Your task to perform on an android device: make emails show in primary in the gmail app Image 0: 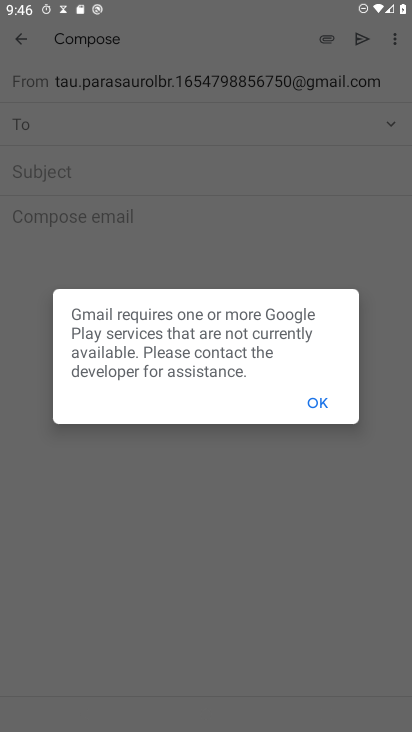
Step 0: click (319, 403)
Your task to perform on an android device: make emails show in primary in the gmail app Image 1: 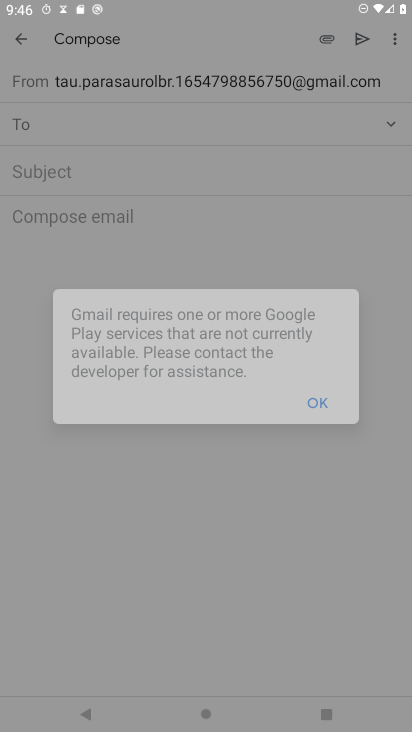
Step 1: click (324, 402)
Your task to perform on an android device: make emails show in primary in the gmail app Image 2: 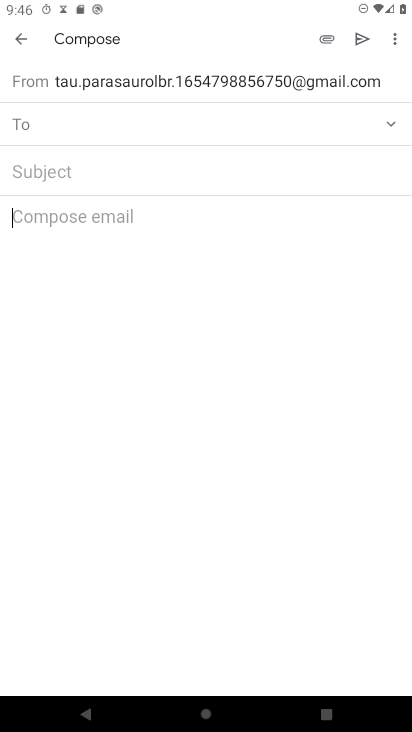
Step 2: click (24, 29)
Your task to perform on an android device: make emails show in primary in the gmail app Image 3: 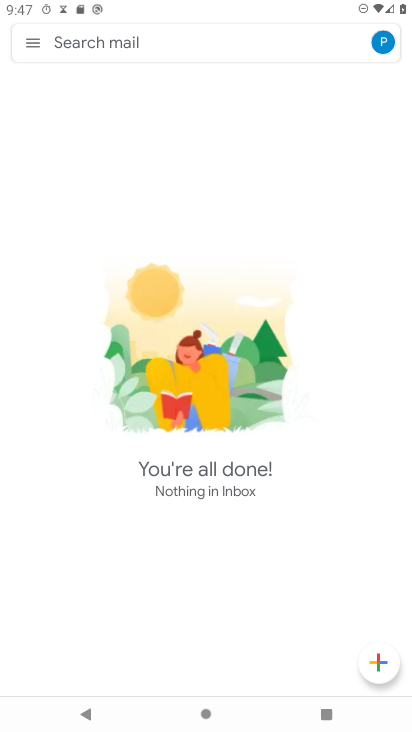
Step 3: drag from (31, 35) to (49, 213)
Your task to perform on an android device: make emails show in primary in the gmail app Image 4: 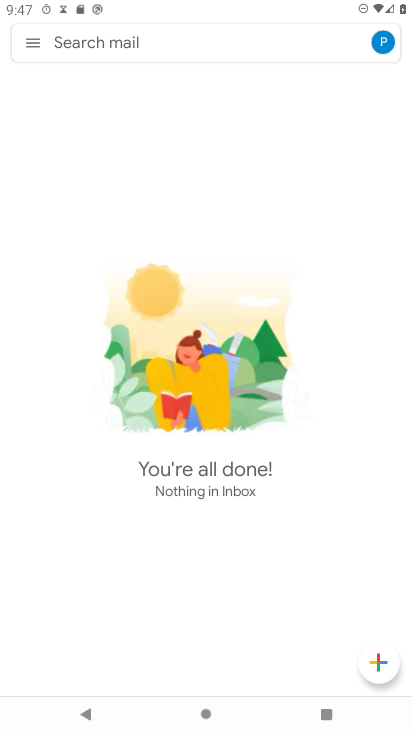
Step 4: click (44, 31)
Your task to perform on an android device: make emails show in primary in the gmail app Image 5: 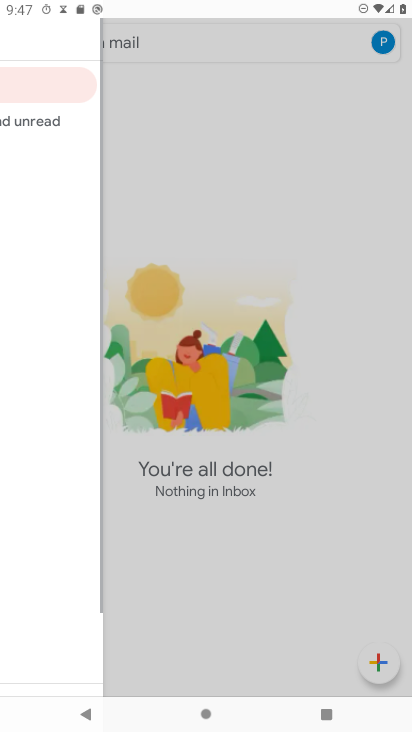
Step 5: drag from (45, 35) to (68, 227)
Your task to perform on an android device: make emails show in primary in the gmail app Image 6: 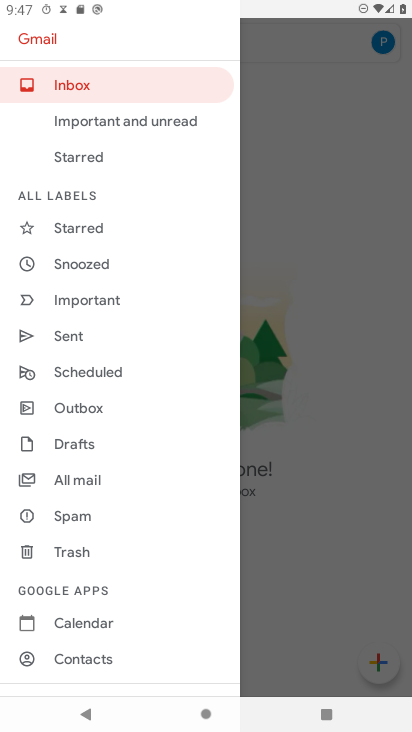
Step 6: drag from (111, 627) to (130, 256)
Your task to perform on an android device: make emails show in primary in the gmail app Image 7: 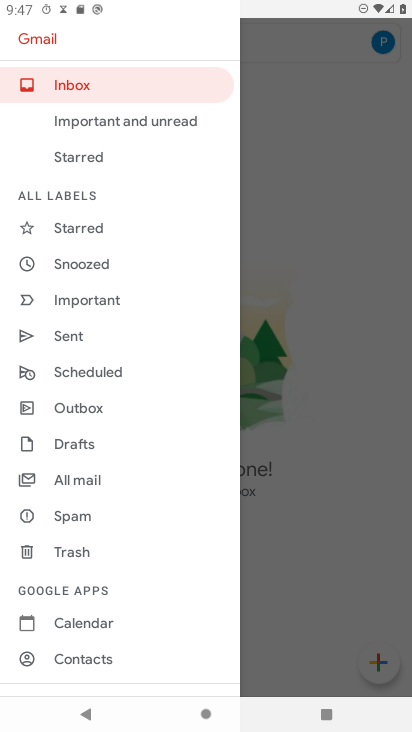
Step 7: drag from (236, 528) to (174, 308)
Your task to perform on an android device: make emails show in primary in the gmail app Image 8: 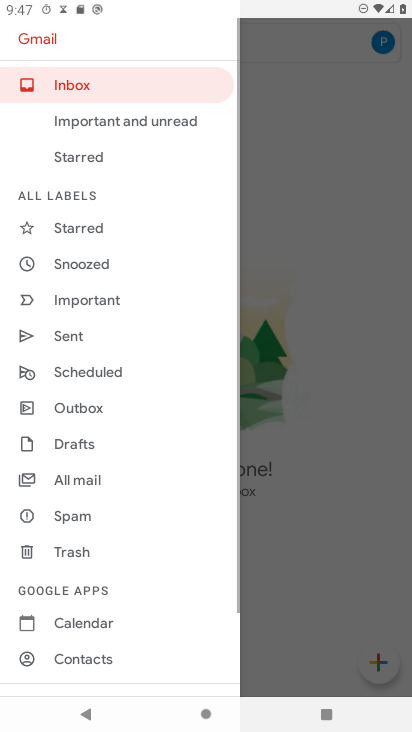
Step 8: drag from (78, 632) to (74, 340)
Your task to perform on an android device: make emails show in primary in the gmail app Image 9: 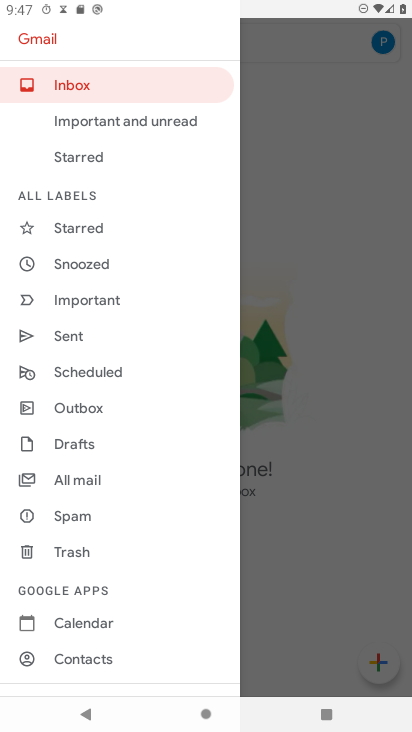
Step 9: drag from (98, 565) to (93, 438)
Your task to perform on an android device: make emails show in primary in the gmail app Image 10: 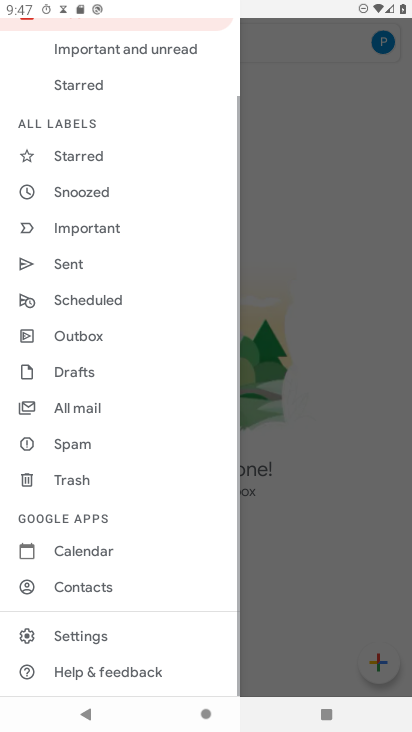
Step 10: click (80, 636)
Your task to perform on an android device: make emails show in primary in the gmail app Image 11: 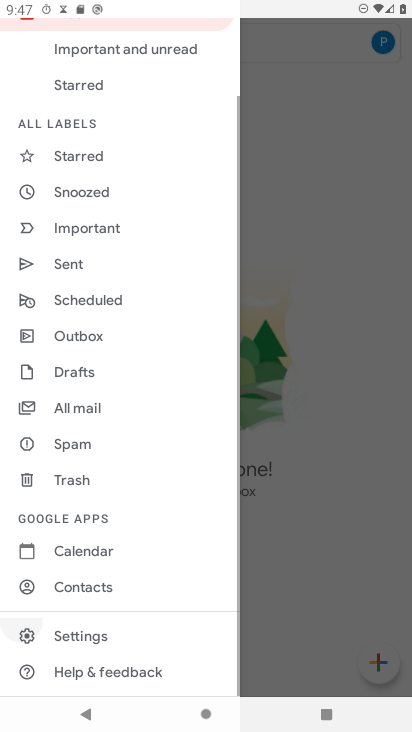
Step 11: click (79, 636)
Your task to perform on an android device: make emails show in primary in the gmail app Image 12: 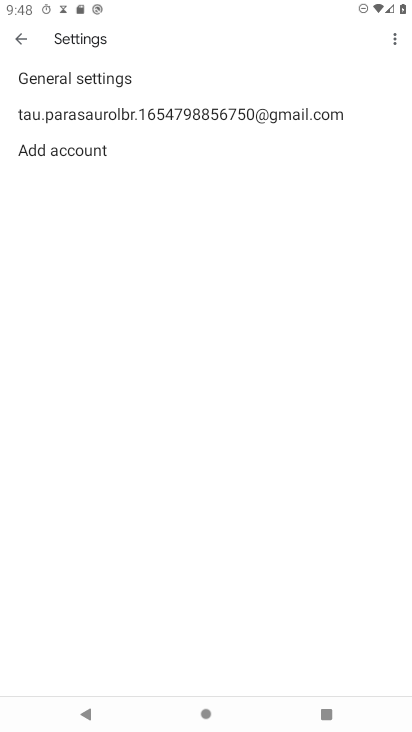
Step 12: click (136, 117)
Your task to perform on an android device: make emails show in primary in the gmail app Image 13: 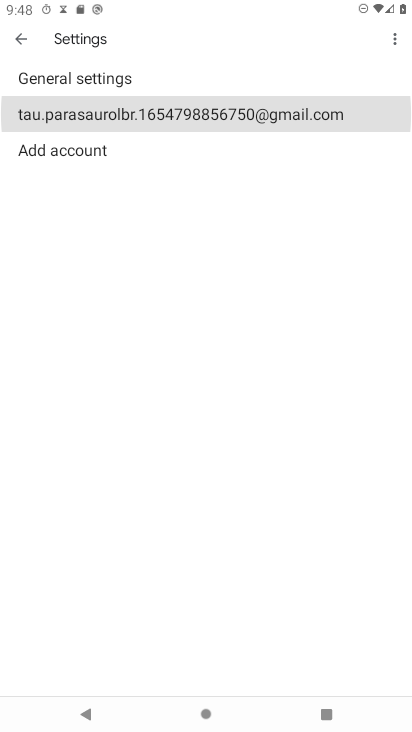
Step 13: click (136, 118)
Your task to perform on an android device: make emails show in primary in the gmail app Image 14: 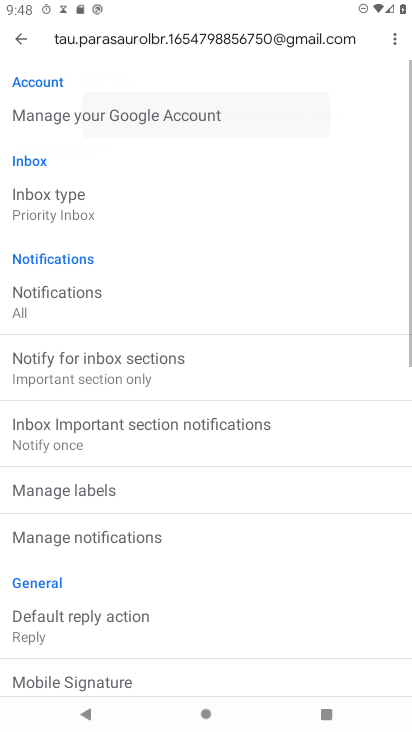
Step 14: click (144, 119)
Your task to perform on an android device: make emails show in primary in the gmail app Image 15: 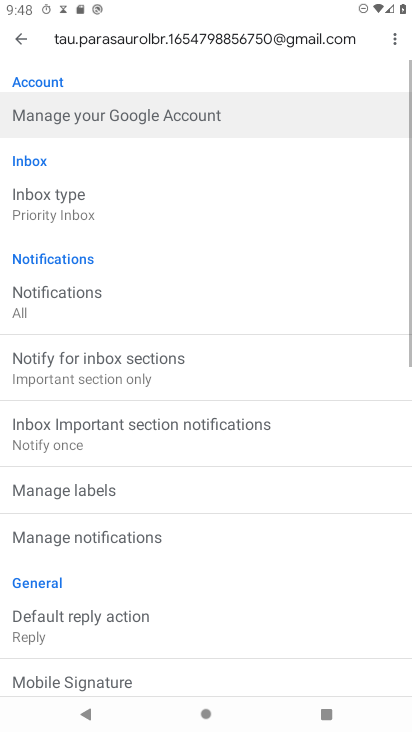
Step 15: click (151, 117)
Your task to perform on an android device: make emails show in primary in the gmail app Image 16: 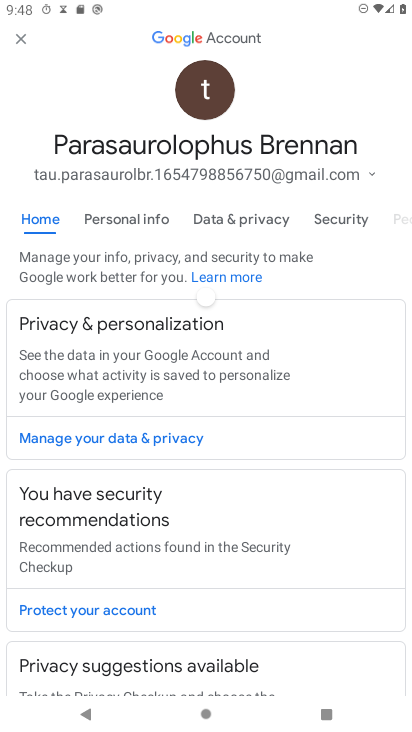
Step 16: click (10, 40)
Your task to perform on an android device: make emails show in primary in the gmail app Image 17: 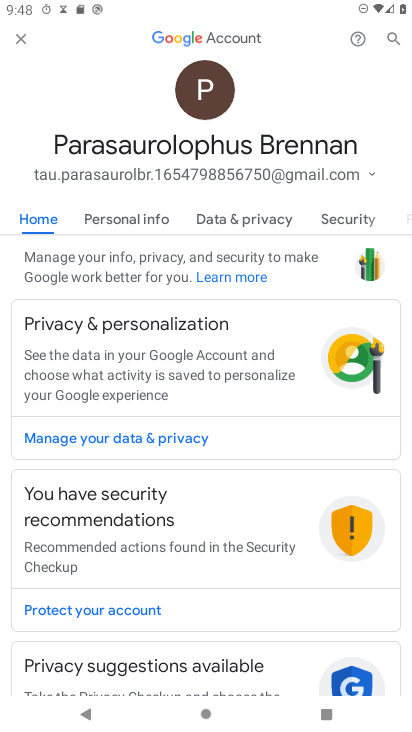
Step 17: click (39, 45)
Your task to perform on an android device: make emails show in primary in the gmail app Image 18: 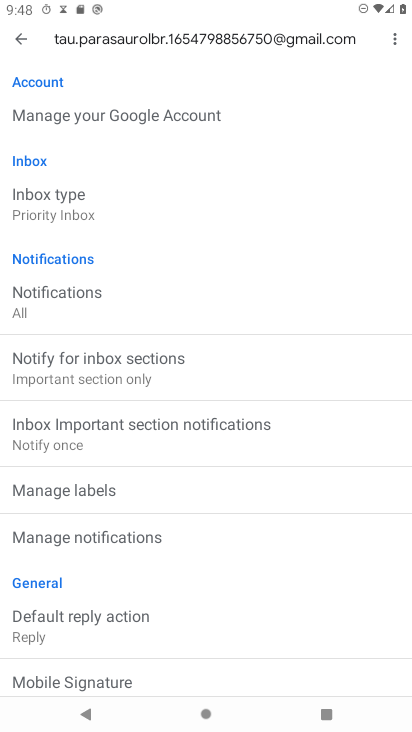
Step 18: click (38, 198)
Your task to perform on an android device: make emails show in primary in the gmail app Image 19: 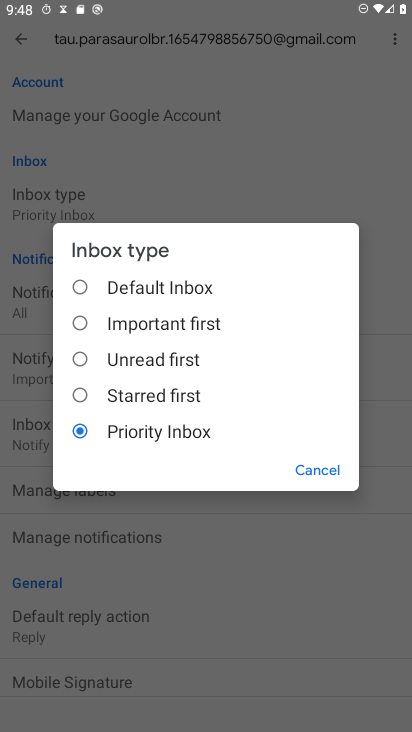
Step 19: click (83, 283)
Your task to perform on an android device: make emails show in primary in the gmail app Image 20: 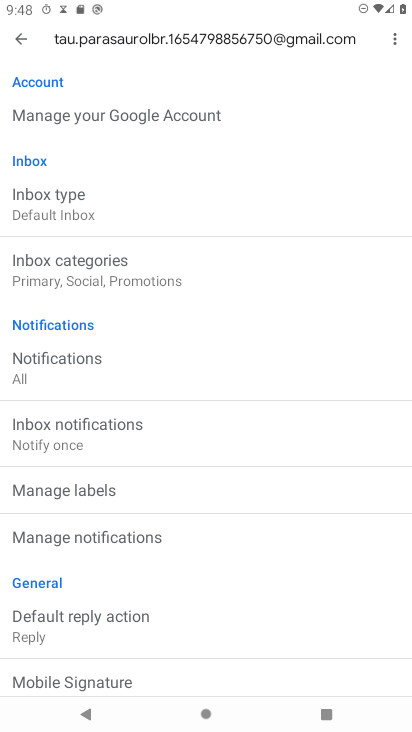
Step 20: task complete